Your task to perform on an android device: Open Yahoo.com Image 0: 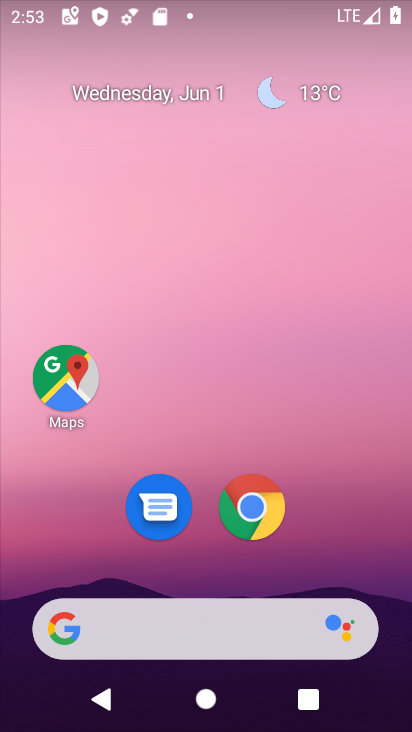
Step 0: click (93, 78)
Your task to perform on an android device: Open Yahoo.com Image 1: 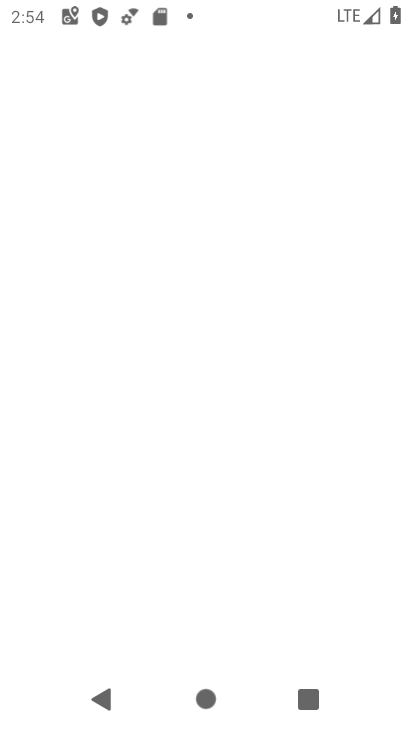
Step 1: press home button
Your task to perform on an android device: Open Yahoo.com Image 2: 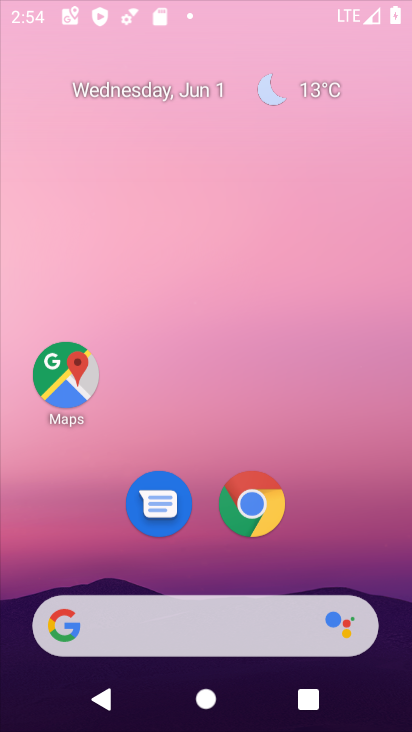
Step 2: press home button
Your task to perform on an android device: Open Yahoo.com Image 3: 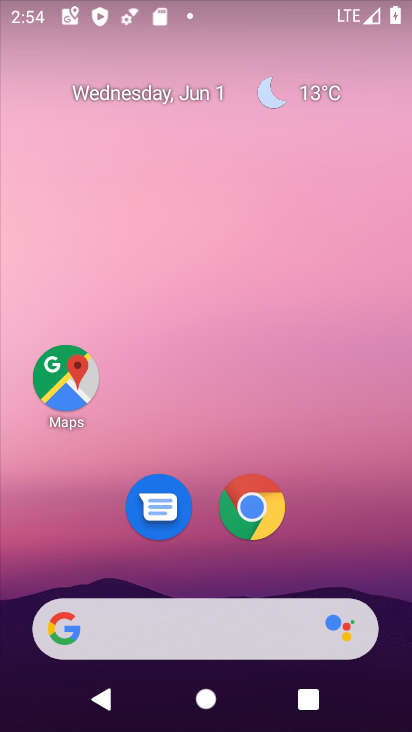
Step 3: click (256, 519)
Your task to perform on an android device: Open Yahoo.com Image 4: 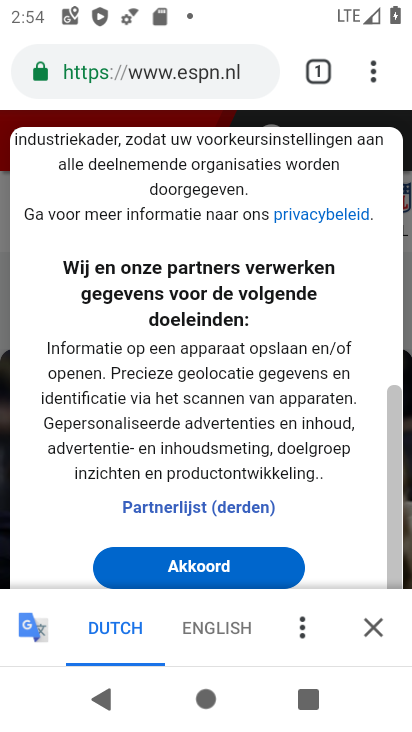
Step 4: click (328, 74)
Your task to perform on an android device: Open Yahoo.com Image 5: 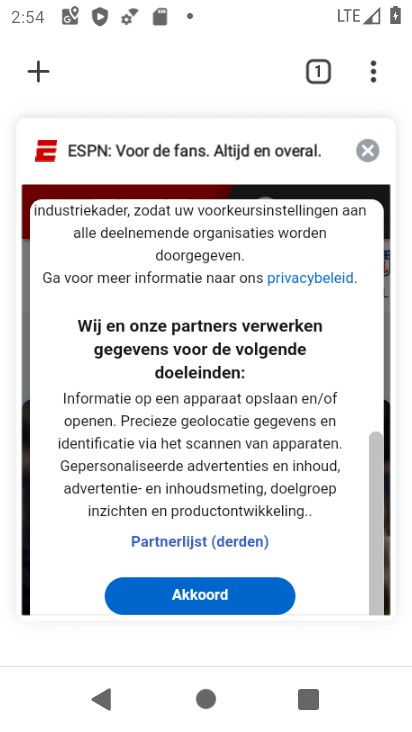
Step 5: click (33, 77)
Your task to perform on an android device: Open Yahoo.com Image 6: 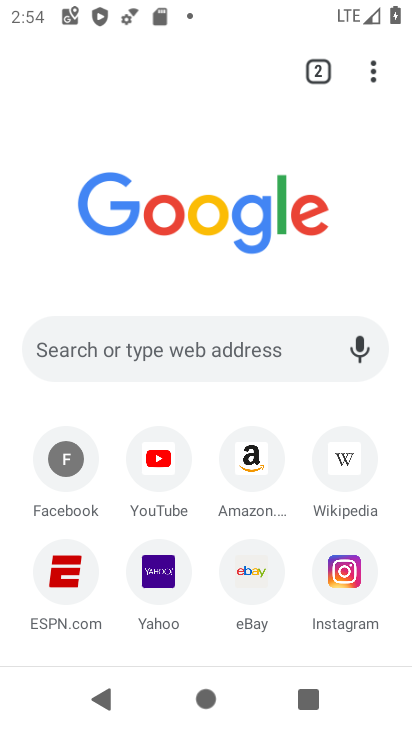
Step 6: click (160, 591)
Your task to perform on an android device: Open Yahoo.com Image 7: 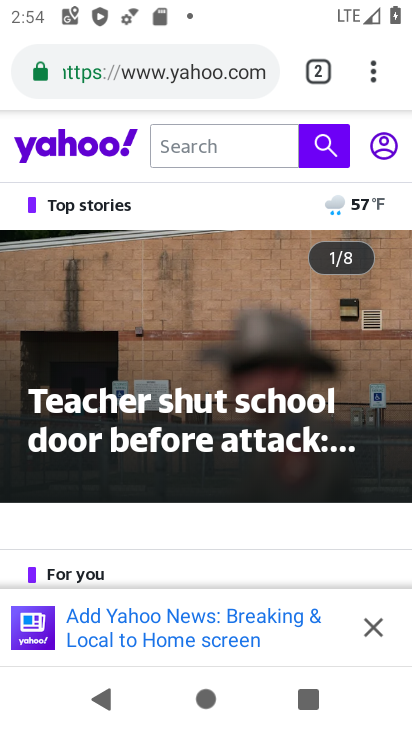
Step 7: task complete